Your task to perform on an android device: Show me popular videos on Youtube Image 0: 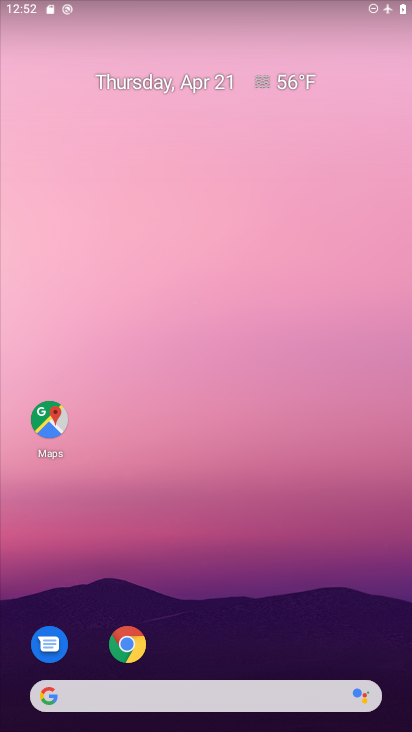
Step 0: drag from (192, 435) to (274, 65)
Your task to perform on an android device: Show me popular videos on Youtube Image 1: 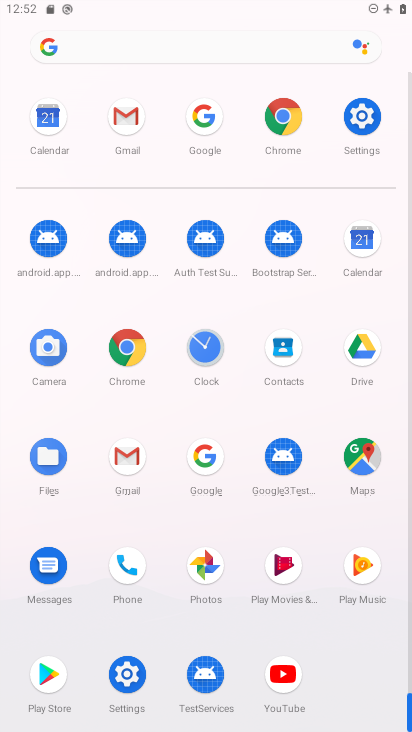
Step 1: click (274, 677)
Your task to perform on an android device: Show me popular videos on Youtube Image 2: 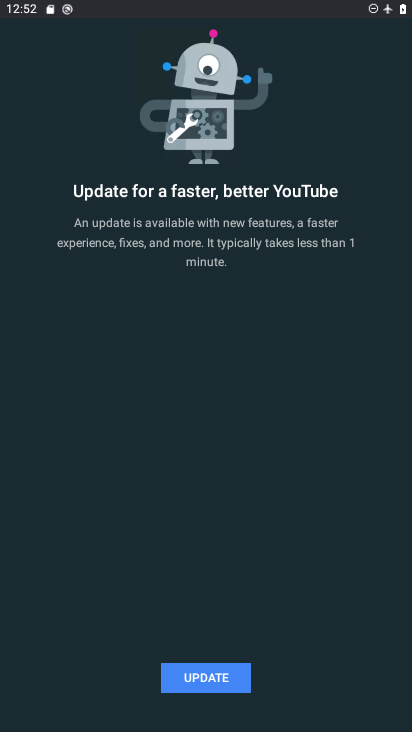
Step 2: click (219, 681)
Your task to perform on an android device: Show me popular videos on Youtube Image 3: 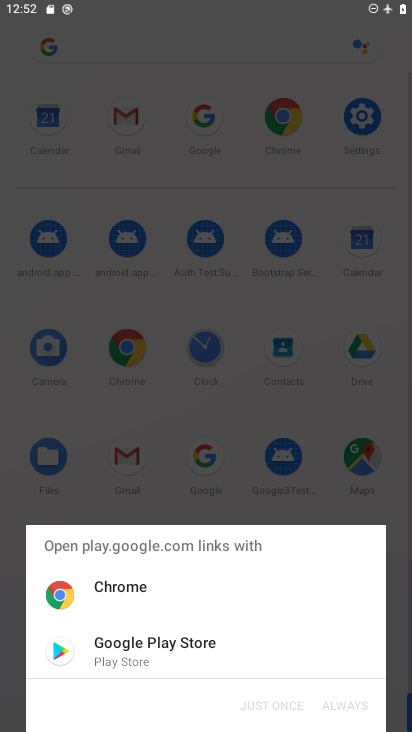
Step 3: click (147, 655)
Your task to perform on an android device: Show me popular videos on Youtube Image 4: 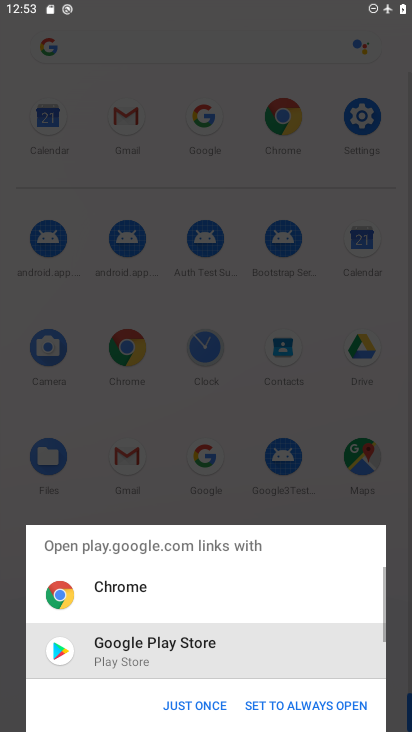
Step 4: click (203, 707)
Your task to perform on an android device: Show me popular videos on Youtube Image 5: 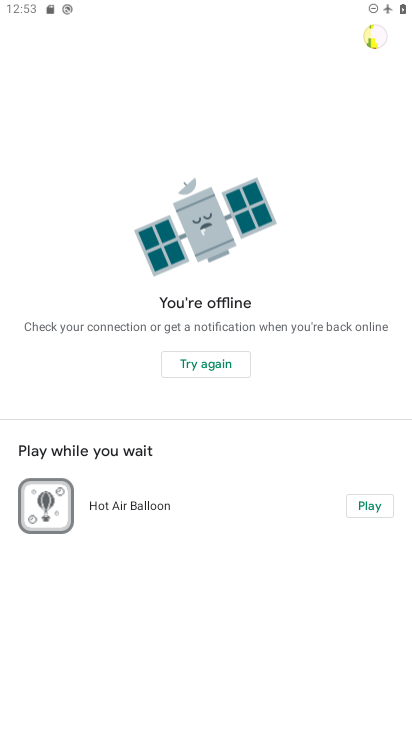
Step 5: task complete